Your task to perform on an android device: turn off priority inbox in the gmail app Image 0: 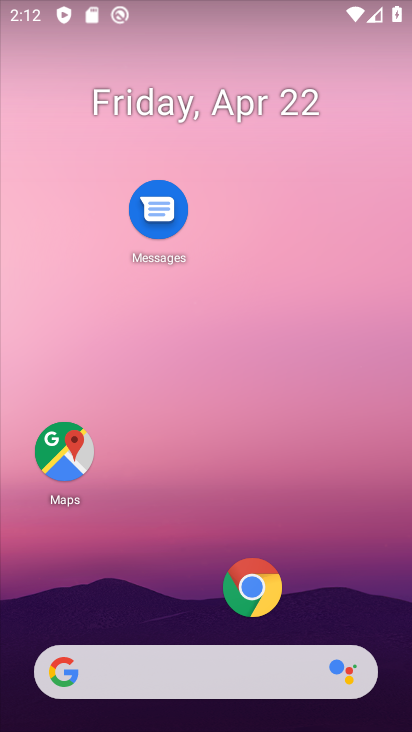
Step 0: drag from (190, 478) to (228, 197)
Your task to perform on an android device: turn off priority inbox in the gmail app Image 1: 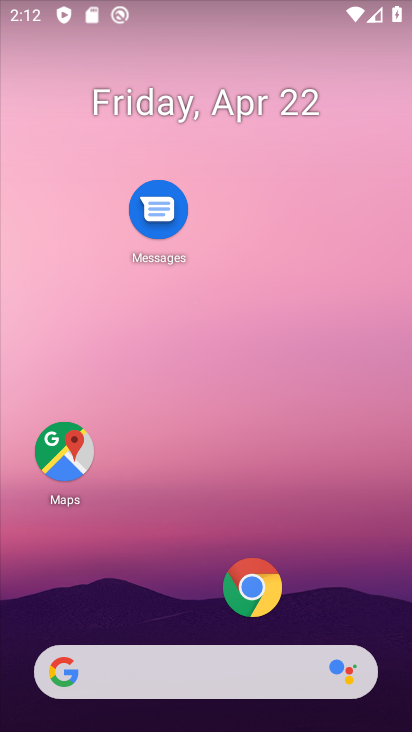
Step 1: drag from (195, 598) to (211, 135)
Your task to perform on an android device: turn off priority inbox in the gmail app Image 2: 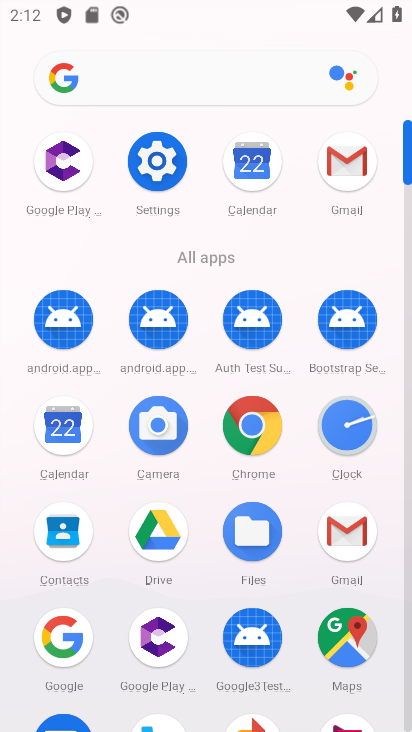
Step 2: click (339, 167)
Your task to perform on an android device: turn off priority inbox in the gmail app Image 3: 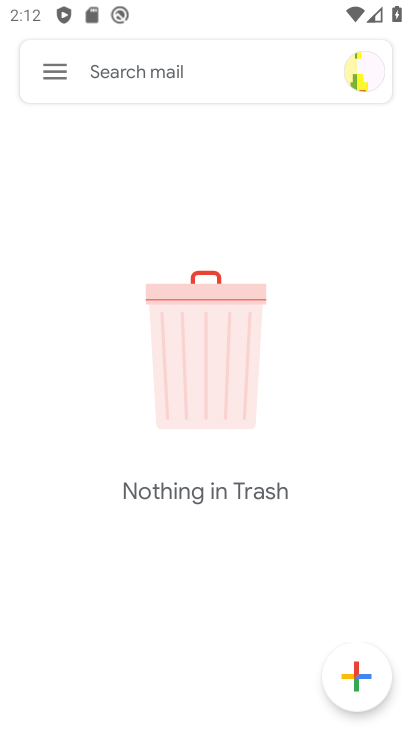
Step 3: click (54, 80)
Your task to perform on an android device: turn off priority inbox in the gmail app Image 4: 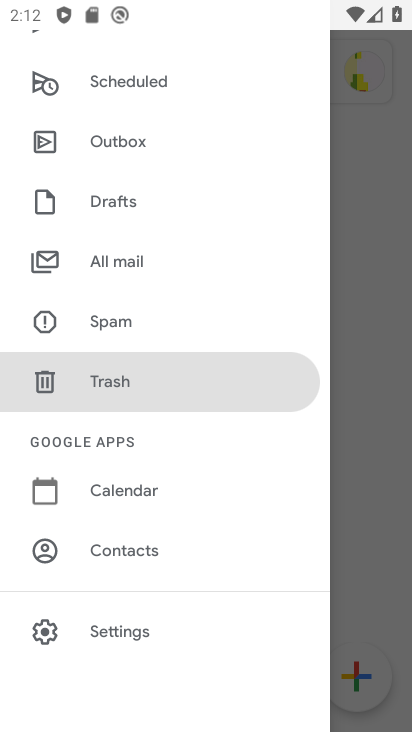
Step 4: click (123, 624)
Your task to perform on an android device: turn off priority inbox in the gmail app Image 5: 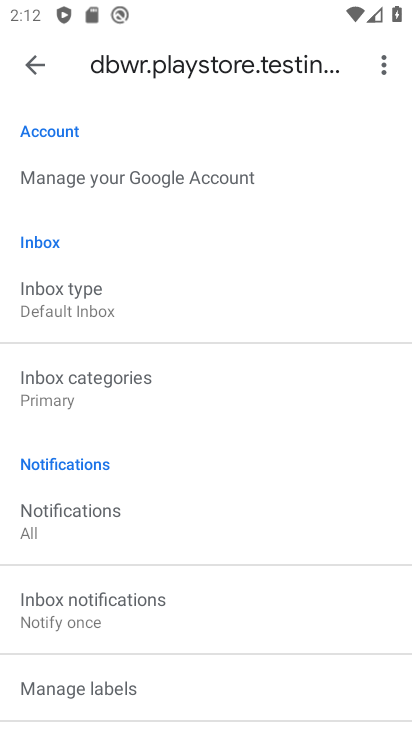
Step 5: click (89, 290)
Your task to perform on an android device: turn off priority inbox in the gmail app Image 6: 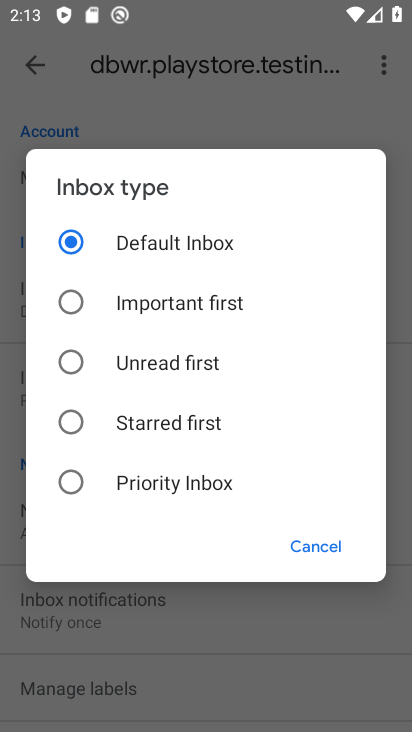
Step 6: task complete